Your task to perform on an android device: turn on priority inbox in the gmail app Image 0: 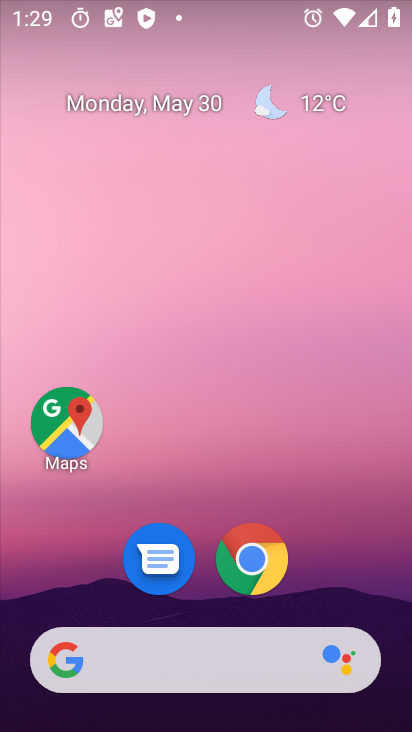
Step 0: drag from (198, 484) to (299, 72)
Your task to perform on an android device: turn on priority inbox in the gmail app Image 1: 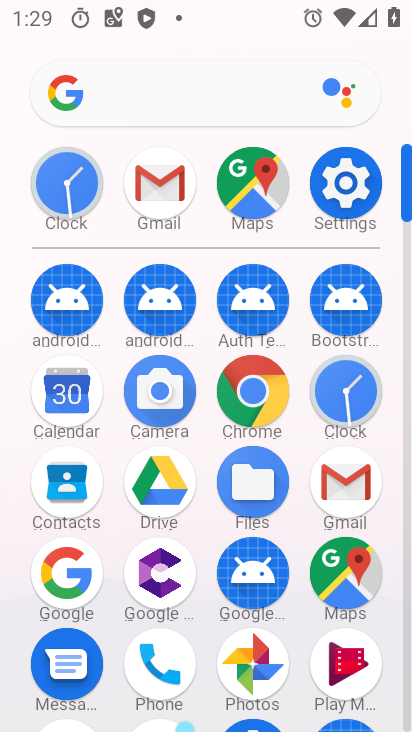
Step 1: click (158, 181)
Your task to perform on an android device: turn on priority inbox in the gmail app Image 2: 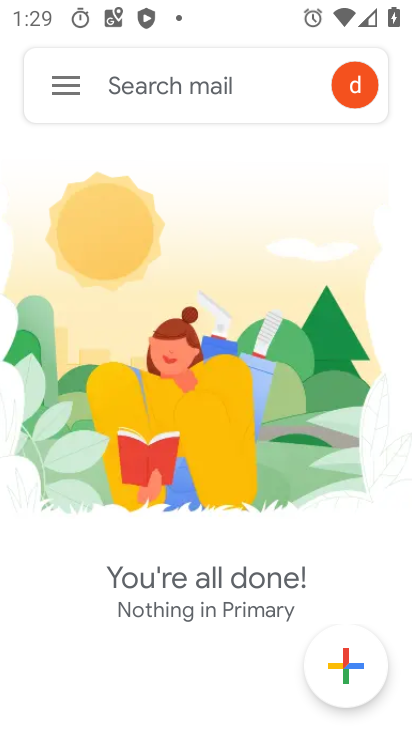
Step 2: click (64, 85)
Your task to perform on an android device: turn on priority inbox in the gmail app Image 3: 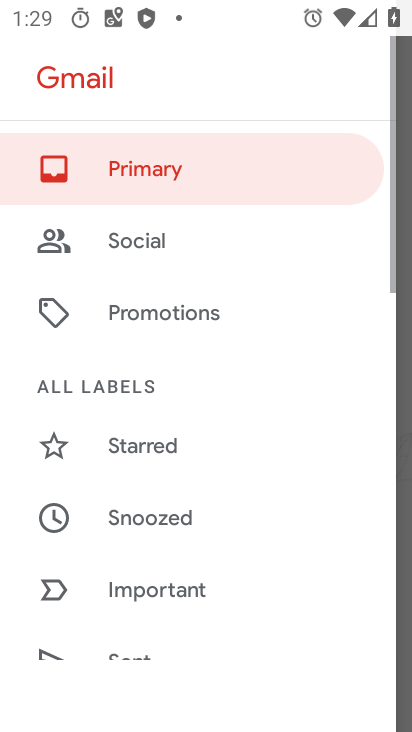
Step 3: drag from (169, 635) to (262, 90)
Your task to perform on an android device: turn on priority inbox in the gmail app Image 4: 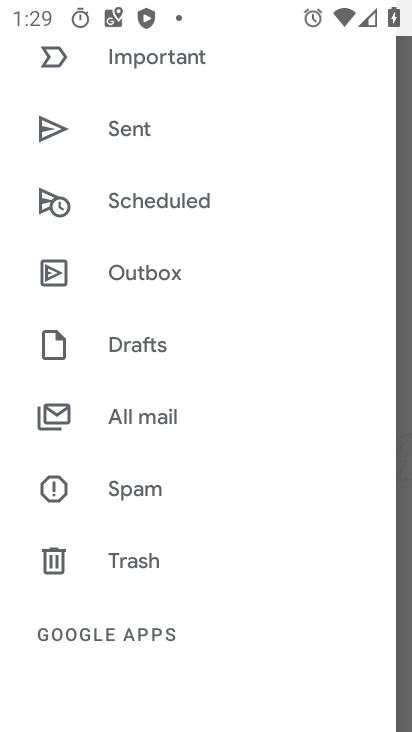
Step 4: drag from (204, 594) to (281, 82)
Your task to perform on an android device: turn on priority inbox in the gmail app Image 5: 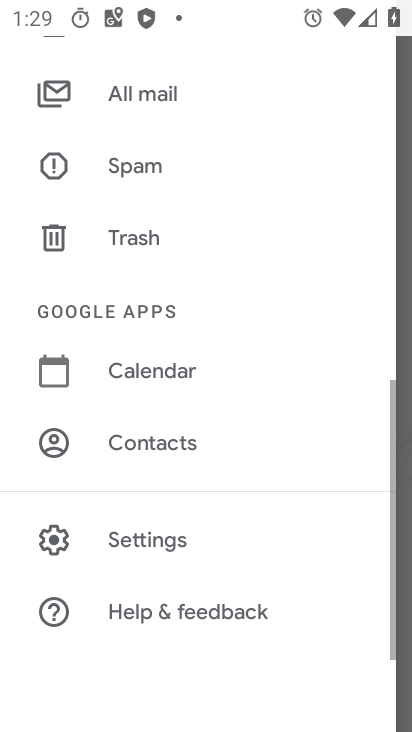
Step 5: click (143, 546)
Your task to perform on an android device: turn on priority inbox in the gmail app Image 6: 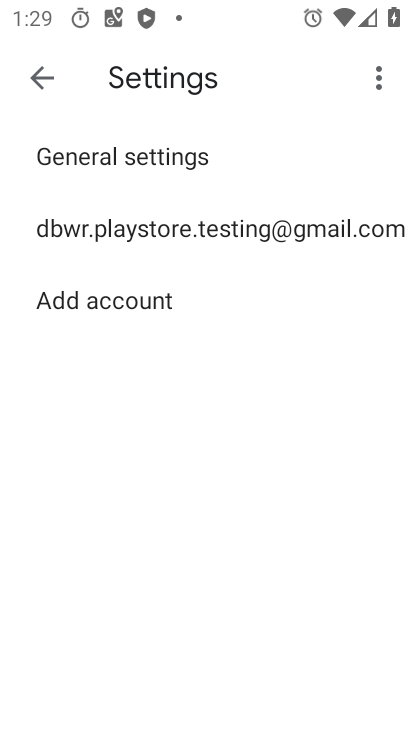
Step 6: click (176, 238)
Your task to perform on an android device: turn on priority inbox in the gmail app Image 7: 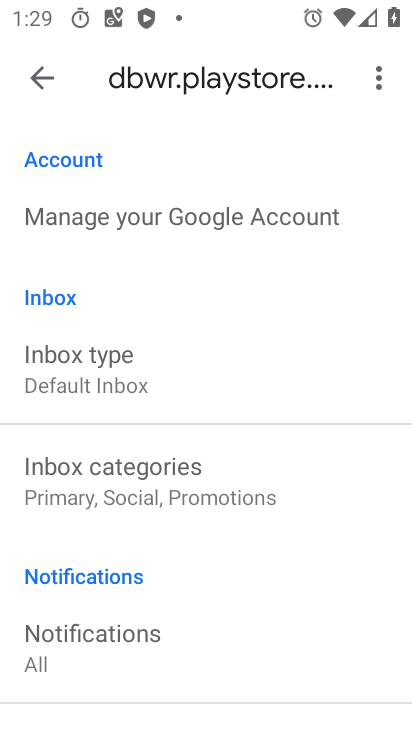
Step 7: click (69, 361)
Your task to perform on an android device: turn on priority inbox in the gmail app Image 8: 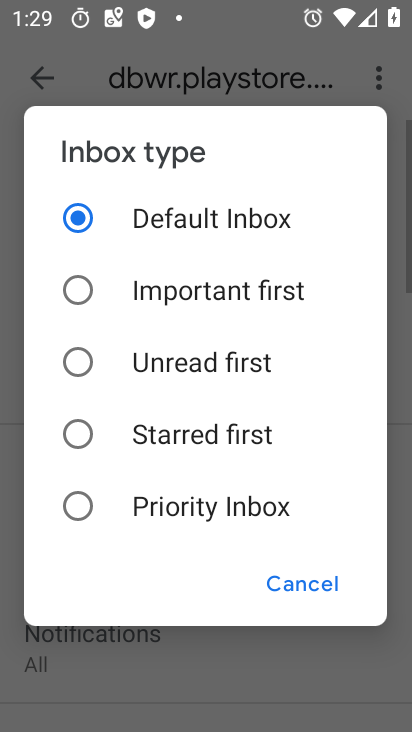
Step 8: click (88, 499)
Your task to perform on an android device: turn on priority inbox in the gmail app Image 9: 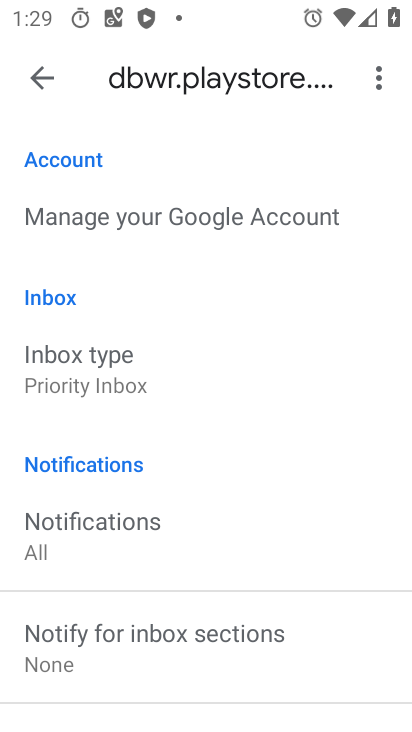
Step 9: task complete